Your task to perform on an android device: Open calendar and show me the first week of next month Image 0: 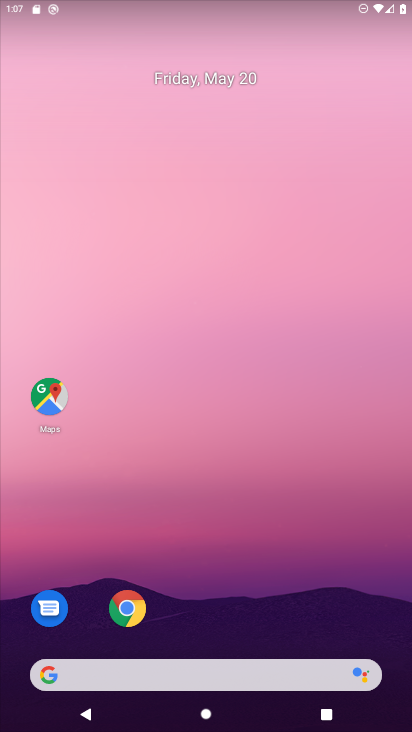
Step 0: press home button
Your task to perform on an android device: Open calendar and show me the first week of next month Image 1: 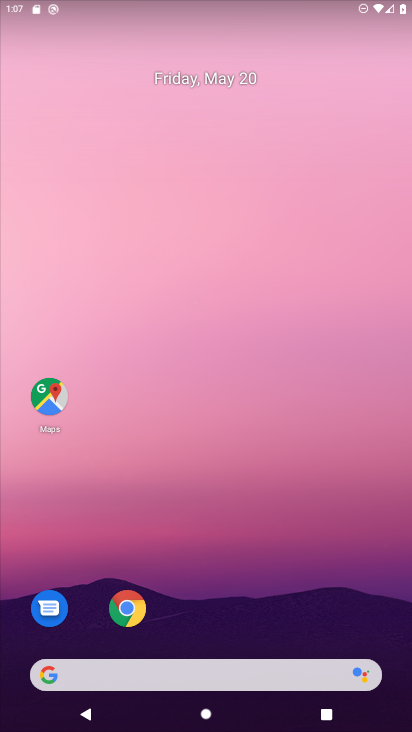
Step 1: drag from (332, 568) to (236, 3)
Your task to perform on an android device: Open calendar and show me the first week of next month Image 2: 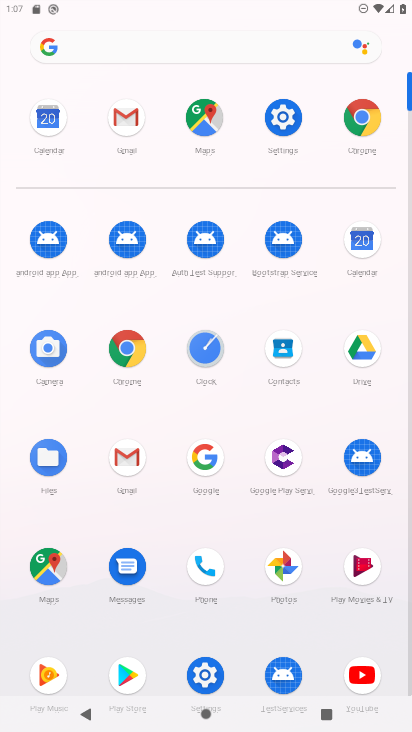
Step 2: click (372, 233)
Your task to perform on an android device: Open calendar and show me the first week of next month Image 3: 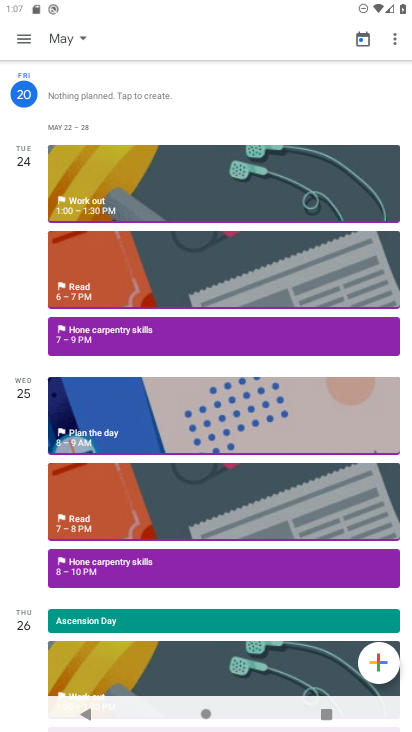
Step 3: click (63, 25)
Your task to perform on an android device: Open calendar and show me the first week of next month Image 4: 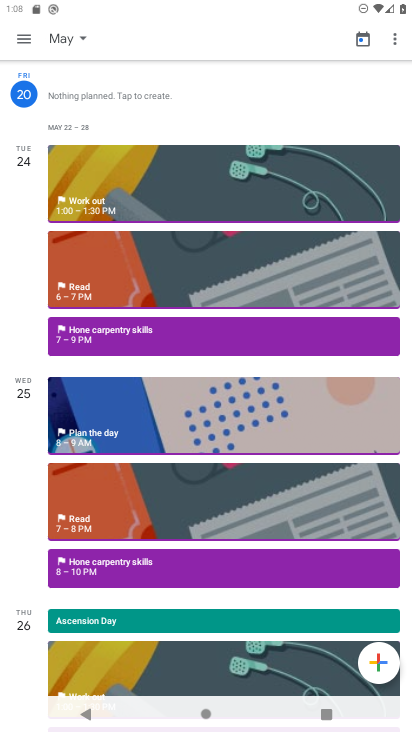
Step 4: click (85, 36)
Your task to perform on an android device: Open calendar and show me the first week of next month Image 5: 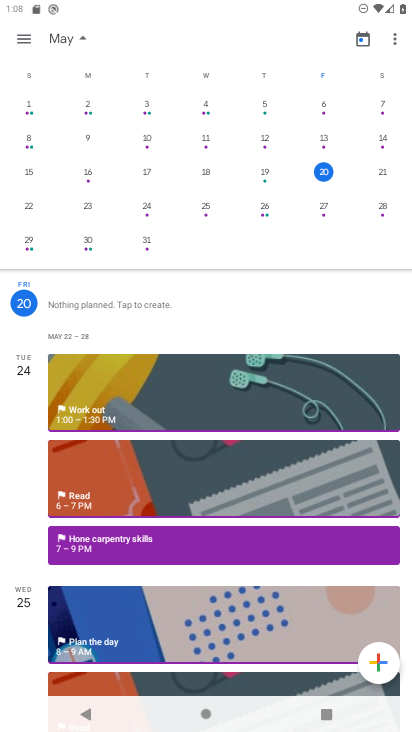
Step 5: task complete